Your task to perform on an android device: toggle wifi Image 0: 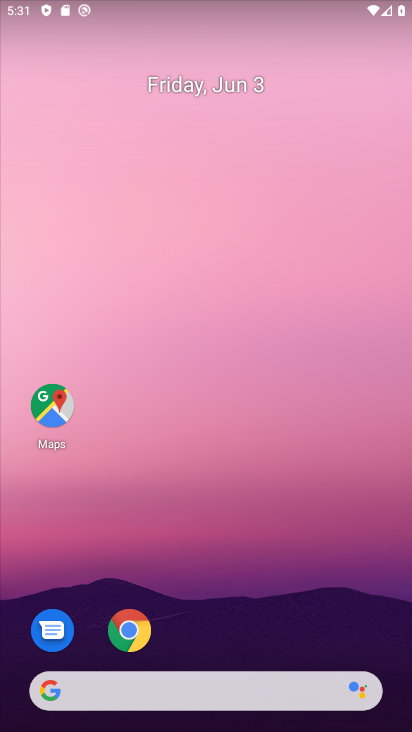
Step 0: drag from (279, 13) to (331, 364)
Your task to perform on an android device: toggle wifi Image 1: 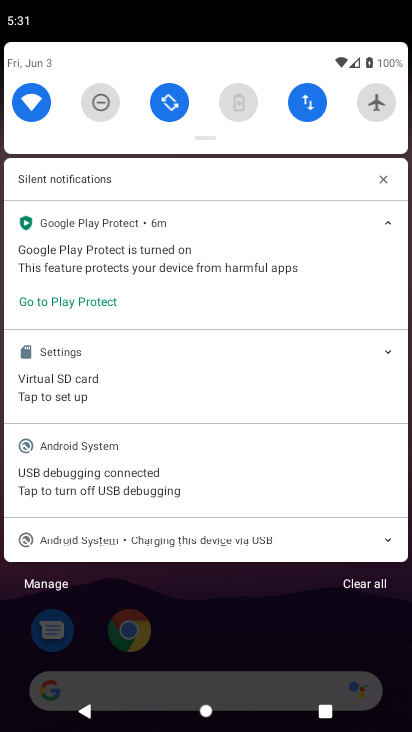
Step 1: click (28, 112)
Your task to perform on an android device: toggle wifi Image 2: 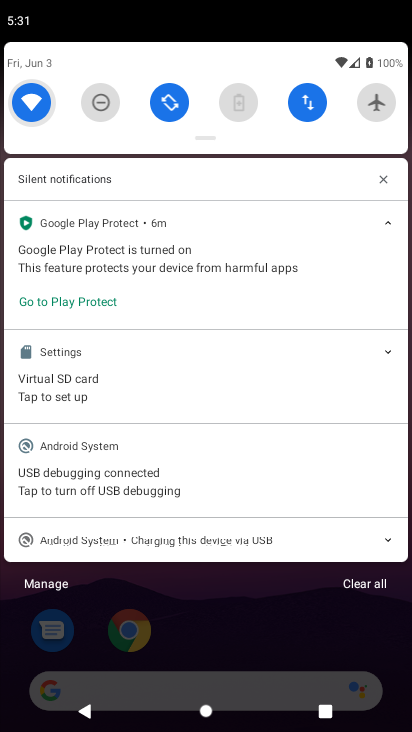
Step 2: click (28, 112)
Your task to perform on an android device: toggle wifi Image 3: 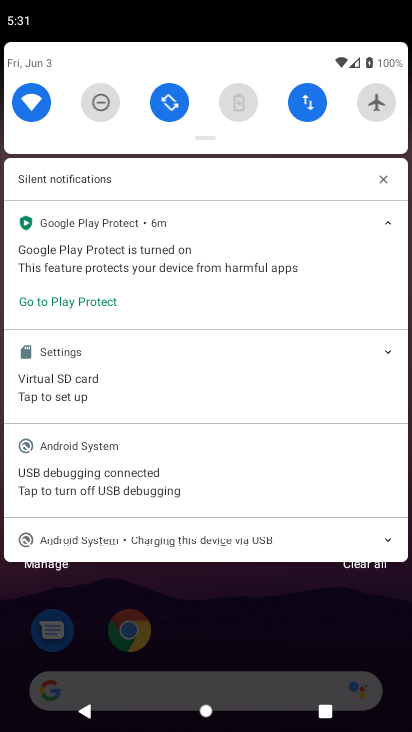
Step 3: click (28, 112)
Your task to perform on an android device: toggle wifi Image 4: 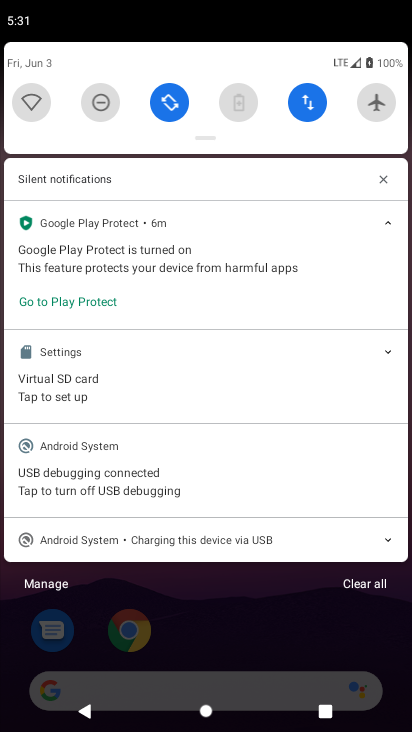
Step 4: click (47, 120)
Your task to perform on an android device: toggle wifi Image 5: 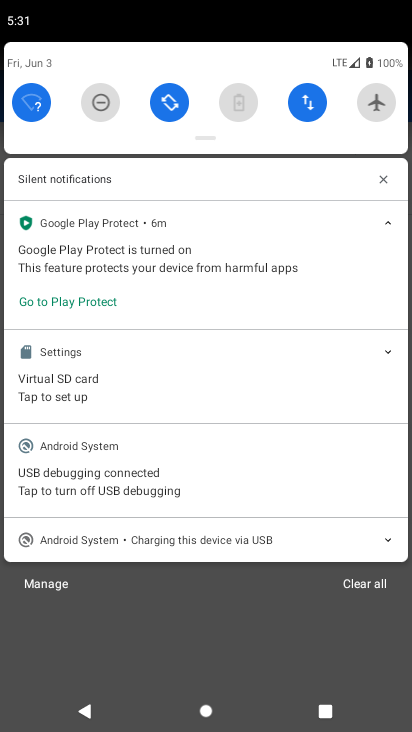
Step 5: click (46, 123)
Your task to perform on an android device: toggle wifi Image 6: 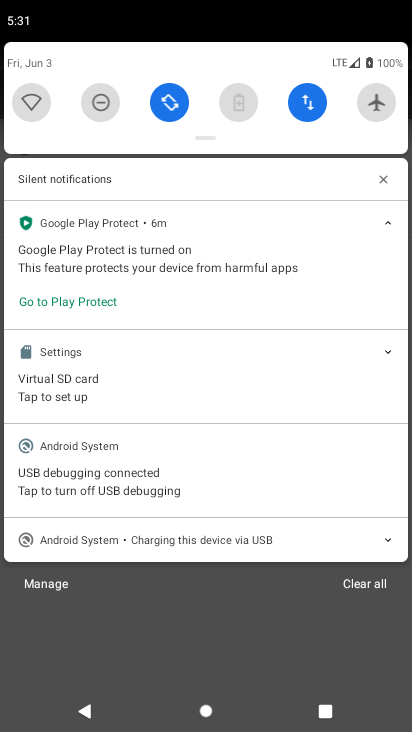
Step 6: task complete